Your task to perform on an android device: Do I have any events today? Image 0: 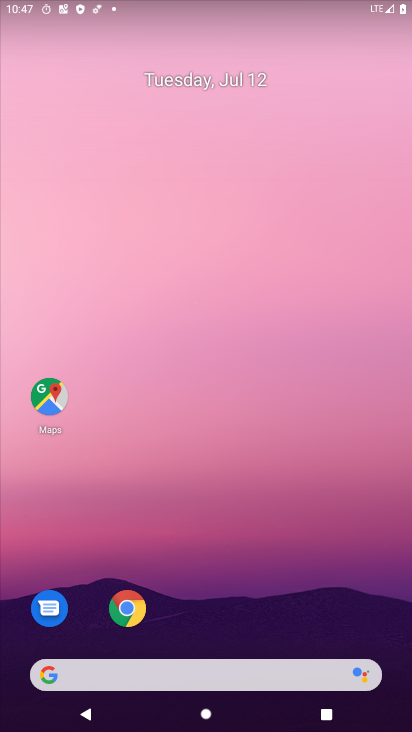
Step 0: drag from (241, 582) to (290, 0)
Your task to perform on an android device: Do I have any events today? Image 1: 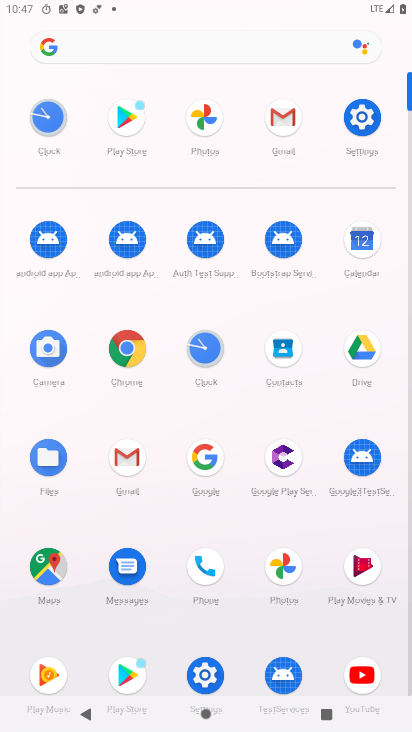
Step 1: click (367, 245)
Your task to perform on an android device: Do I have any events today? Image 2: 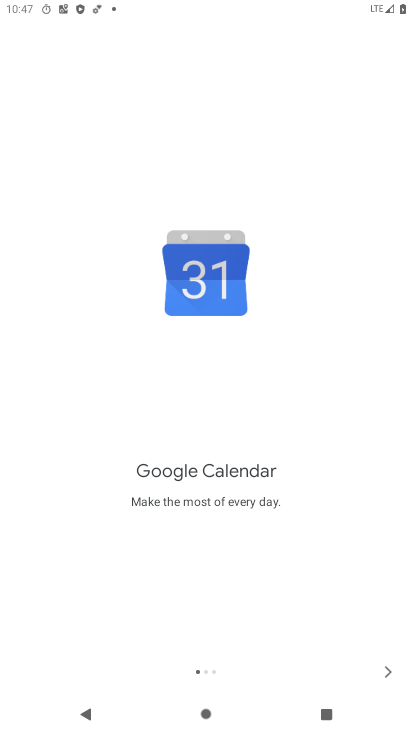
Step 2: click (390, 666)
Your task to perform on an android device: Do I have any events today? Image 3: 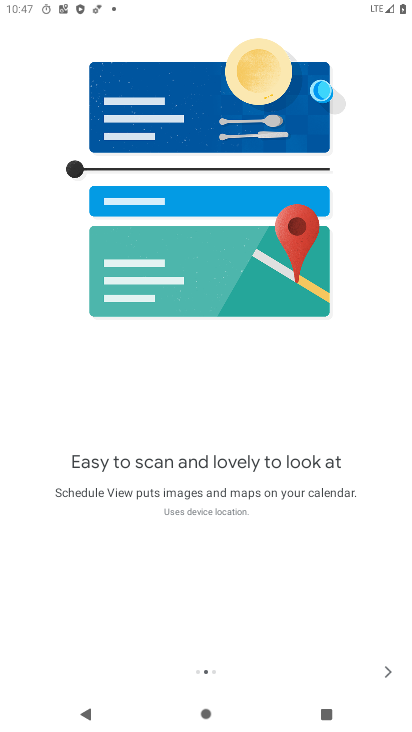
Step 3: click (390, 666)
Your task to perform on an android device: Do I have any events today? Image 4: 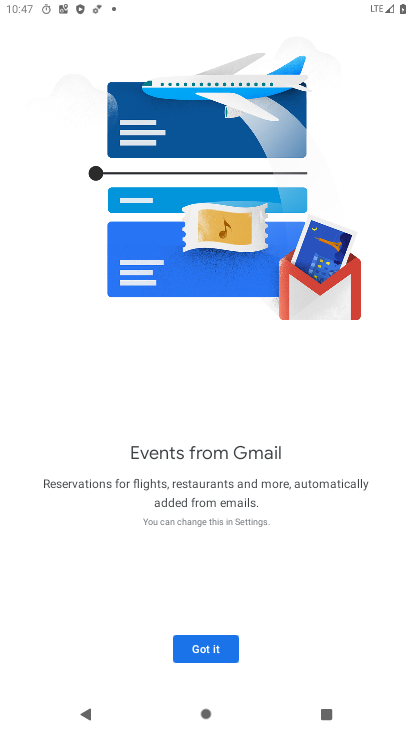
Step 4: click (186, 646)
Your task to perform on an android device: Do I have any events today? Image 5: 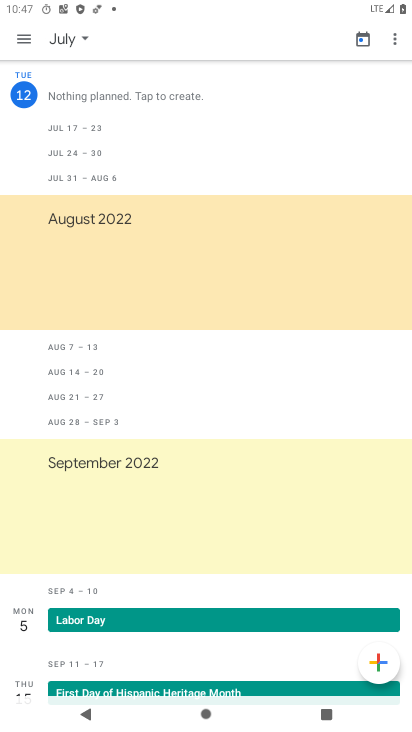
Step 5: click (81, 37)
Your task to perform on an android device: Do I have any events today? Image 6: 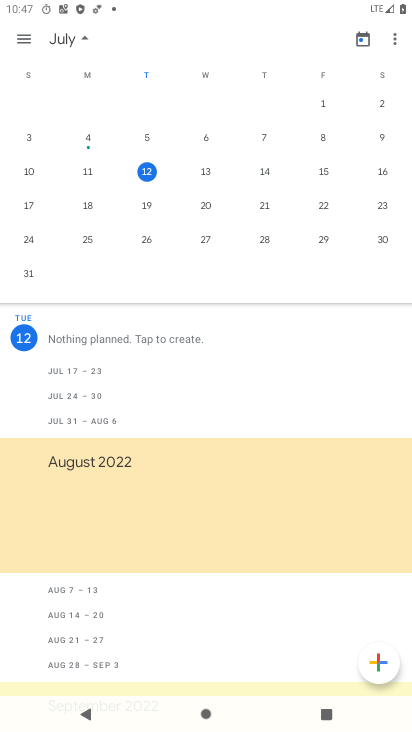
Step 6: click (147, 174)
Your task to perform on an android device: Do I have any events today? Image 7: 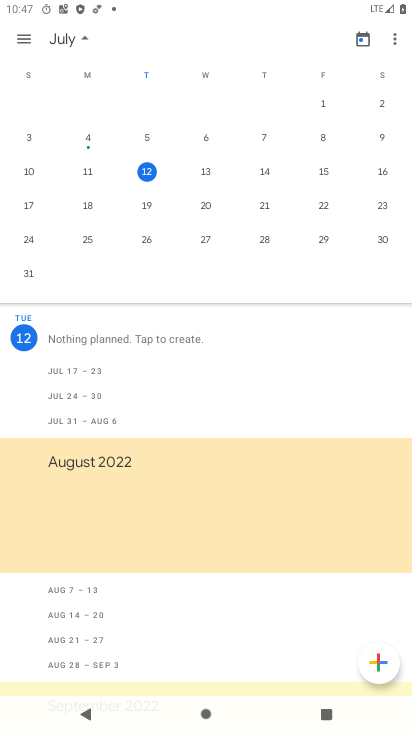
Step 7: task complete